Your task to perform on an android device: Open CNN.com Image 0: 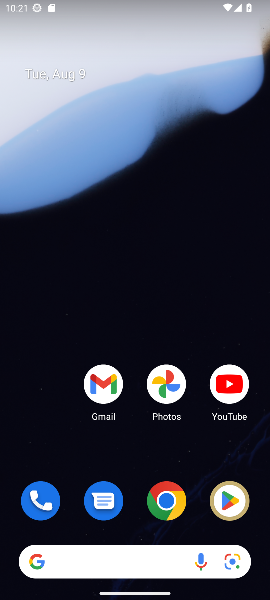
Step 0: click (169, 494)
Your task to perform on an android device: Open CNN.com Image 1: 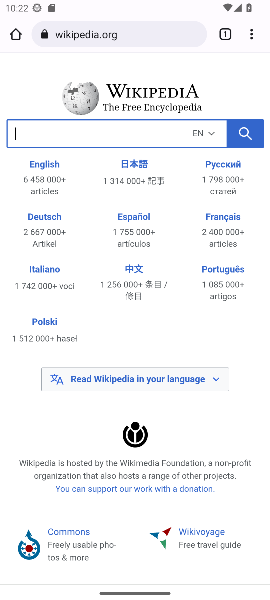
Step 1: click (103, 34)
Your task to perform on an android device: Open CNN.com Image 2: 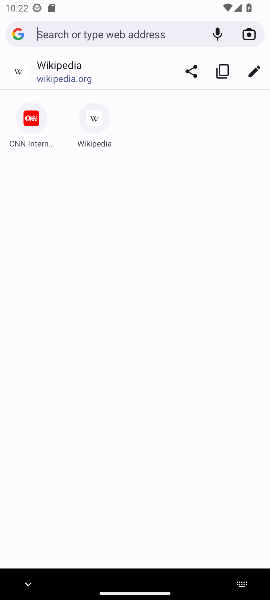
Step 2: click (27, 121)
Your task to perform on an android device: Open CNN.com Image 3: 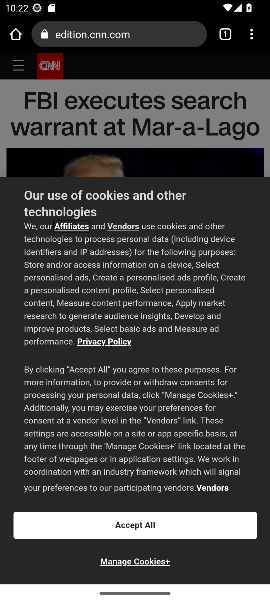
Step 3: task complete